Your task to perform on an android device: Open Youtube and go to the subscriptions tab Image 0: 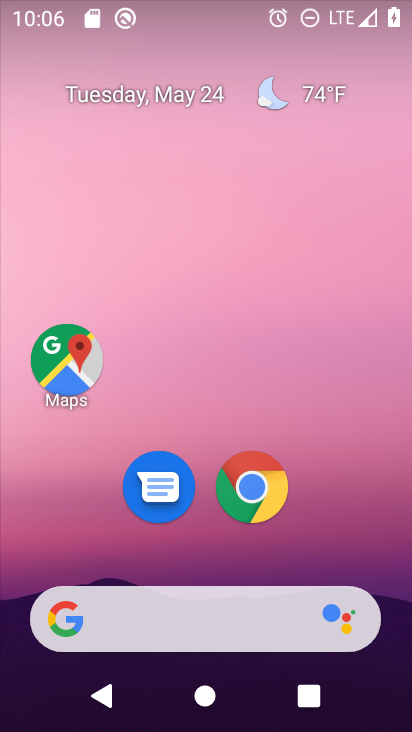
Step 0: drag from (342, 562) to (363, 36)
Your task to perform on an android device: Open Youtube and go to the subscriptions tab Image 1: 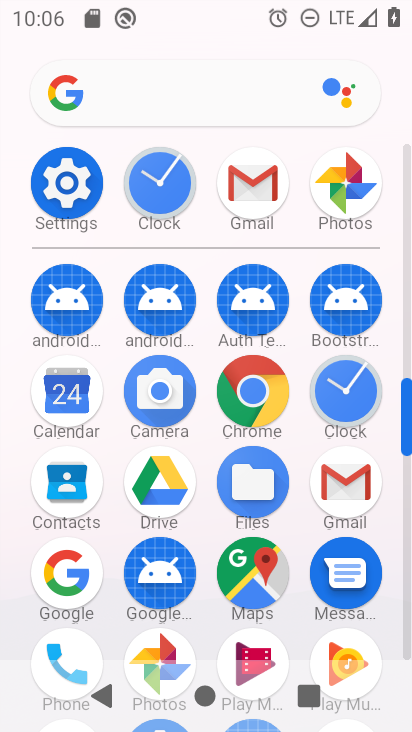
Step 1: drag from (407, 448) to (409, 357)
Your task to perform on an android device: Open Youtube and go to the subscriptions tab Image 2: 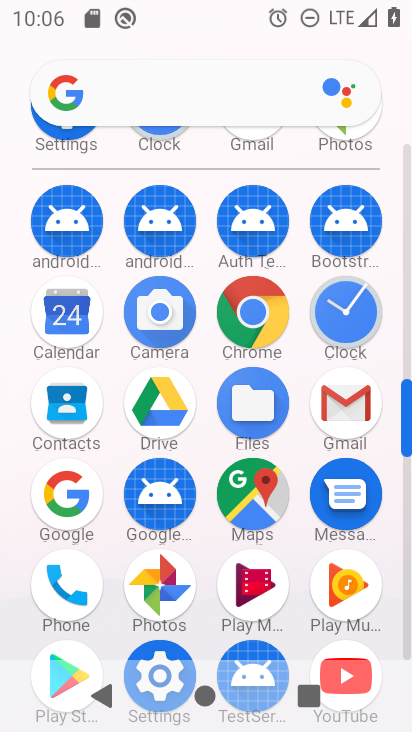
Step 2: click (410, 592)
Your task to perform on an android device: Open Youtube and go to the subscriptions tab Image 3: 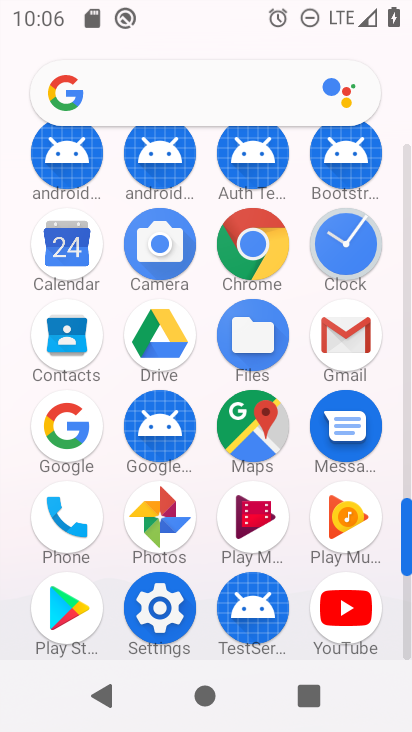
Step 3: click (359, 603)
Your task to perform on an android device: Open Youtube and go to the subscriptions tab Image 4: 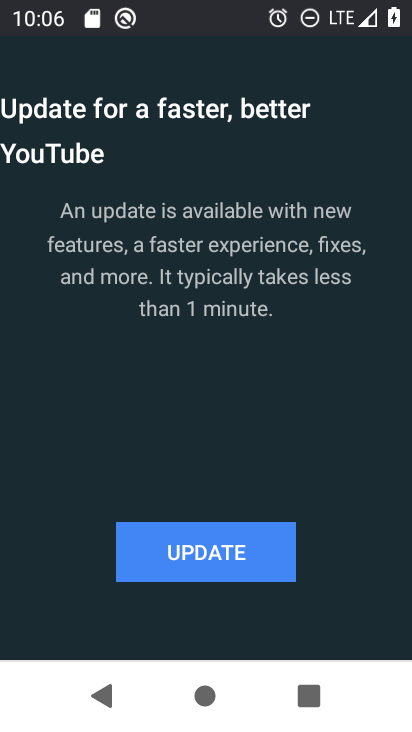
Step 4: click (204, 563)
Your task to perform on an android device: Open Youtube and go to the subscriptions tab Image 5: 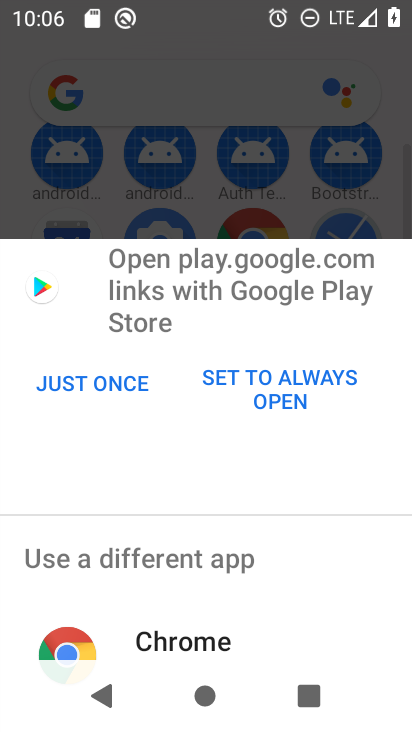
Step 5: click (86, 381)
Your task to perform on an android device: Open Youtube and go to the subscriptions tab Image 6: 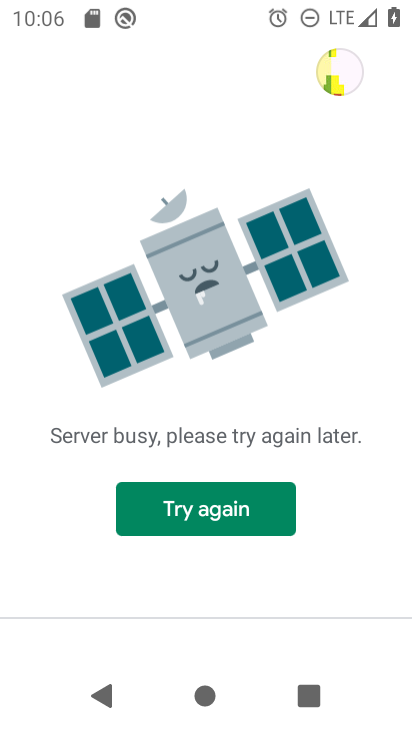
Step 6: task complete